Your task to perform on an android device: Do I have any events tomorrow? Image 0: 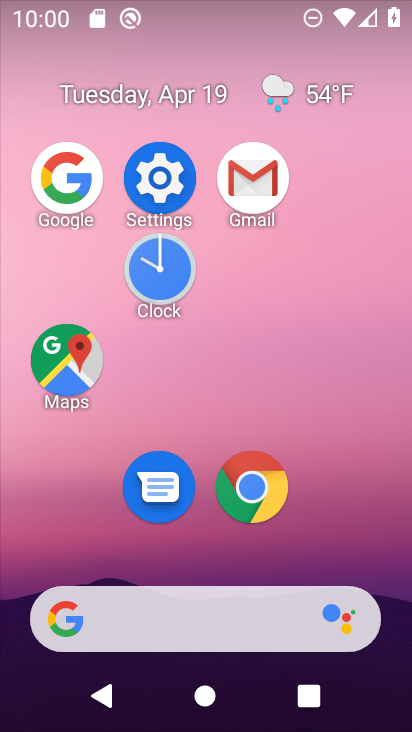
Step 0: drag from (221, 546) to (304, 132)
Your task to perform on an android device: Do I have any events tomorrow? Image 1: 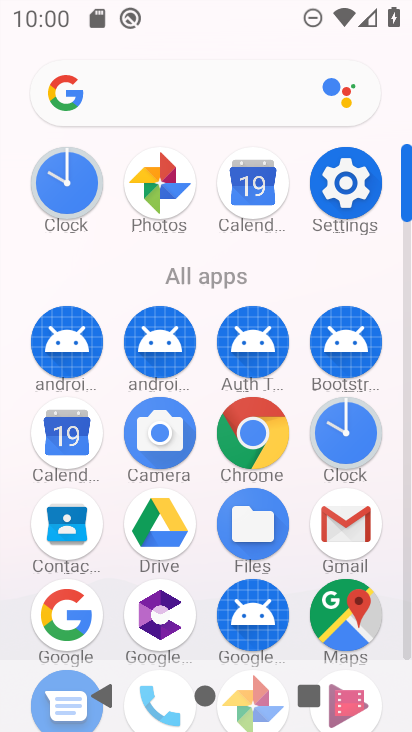
Step 1: click (71, 429)
Your task to perform on an android device: Do I have any events tomorrow? Image 2: 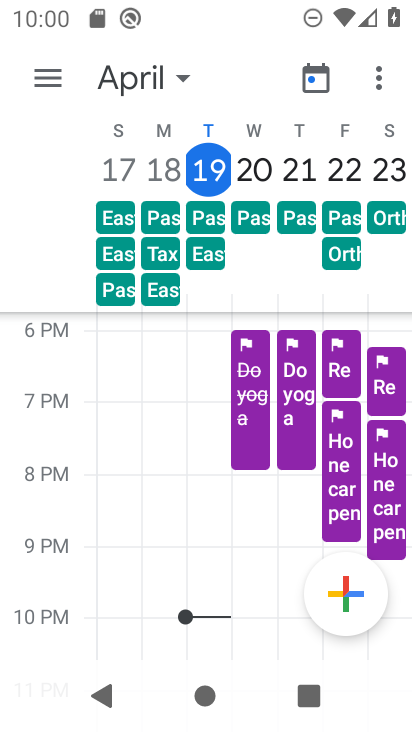
Step 2: click (265, 156)
Your task to perform on an android device: Do I have any events tomorrow? Image 3: 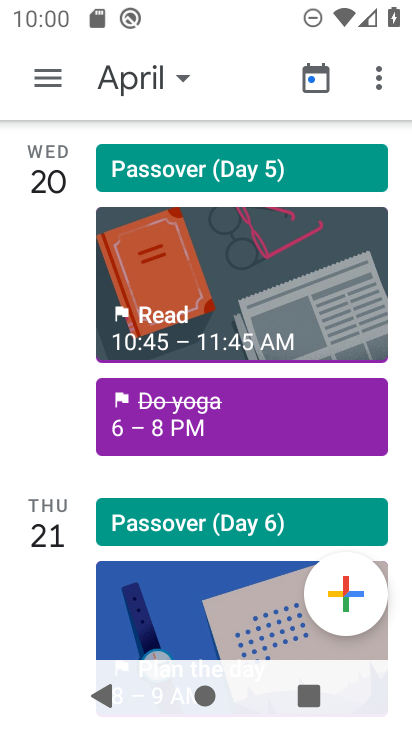
Step 3: task complete